Your task to perform on an android device: install app "Firefox Browser" Image 0: 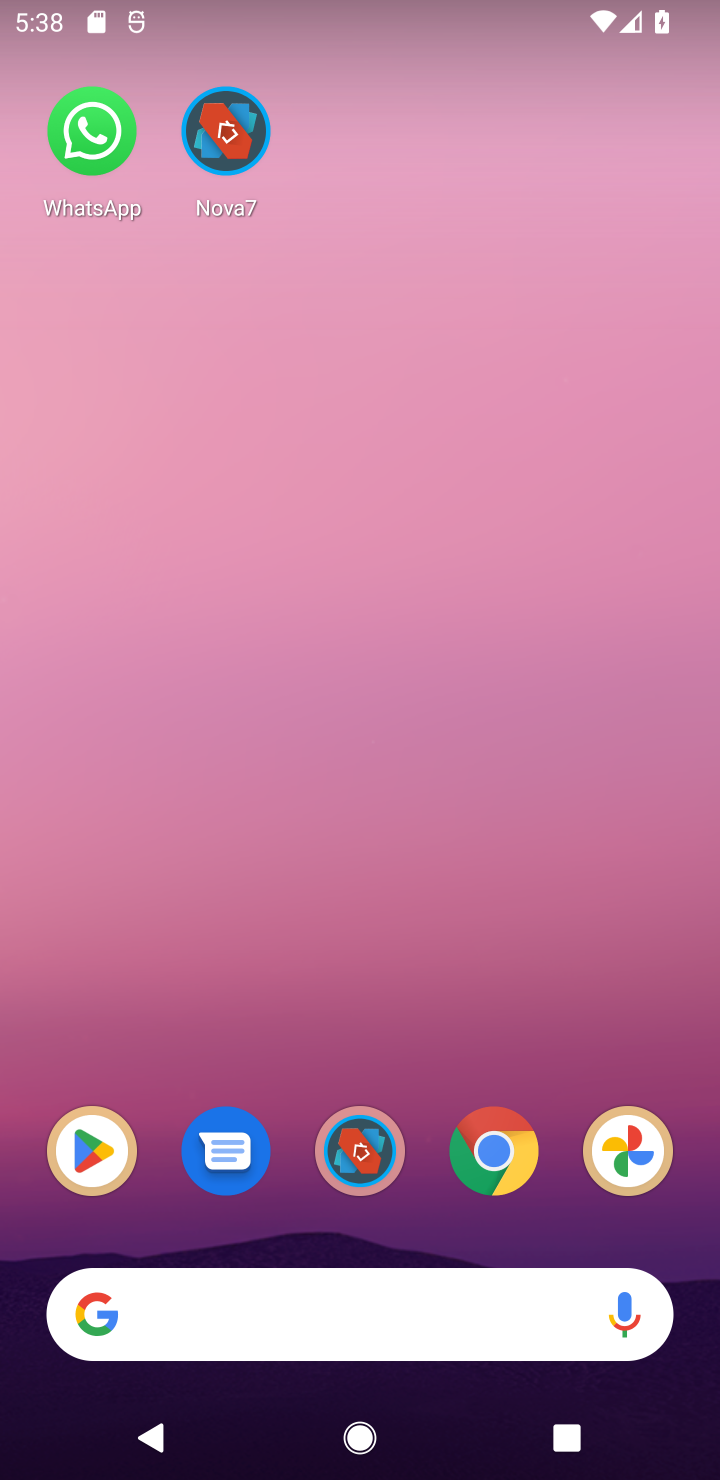
Step 0: click (98, 1154)
Your task to perform on an android device: install app "Firefox Browser" Image 1: 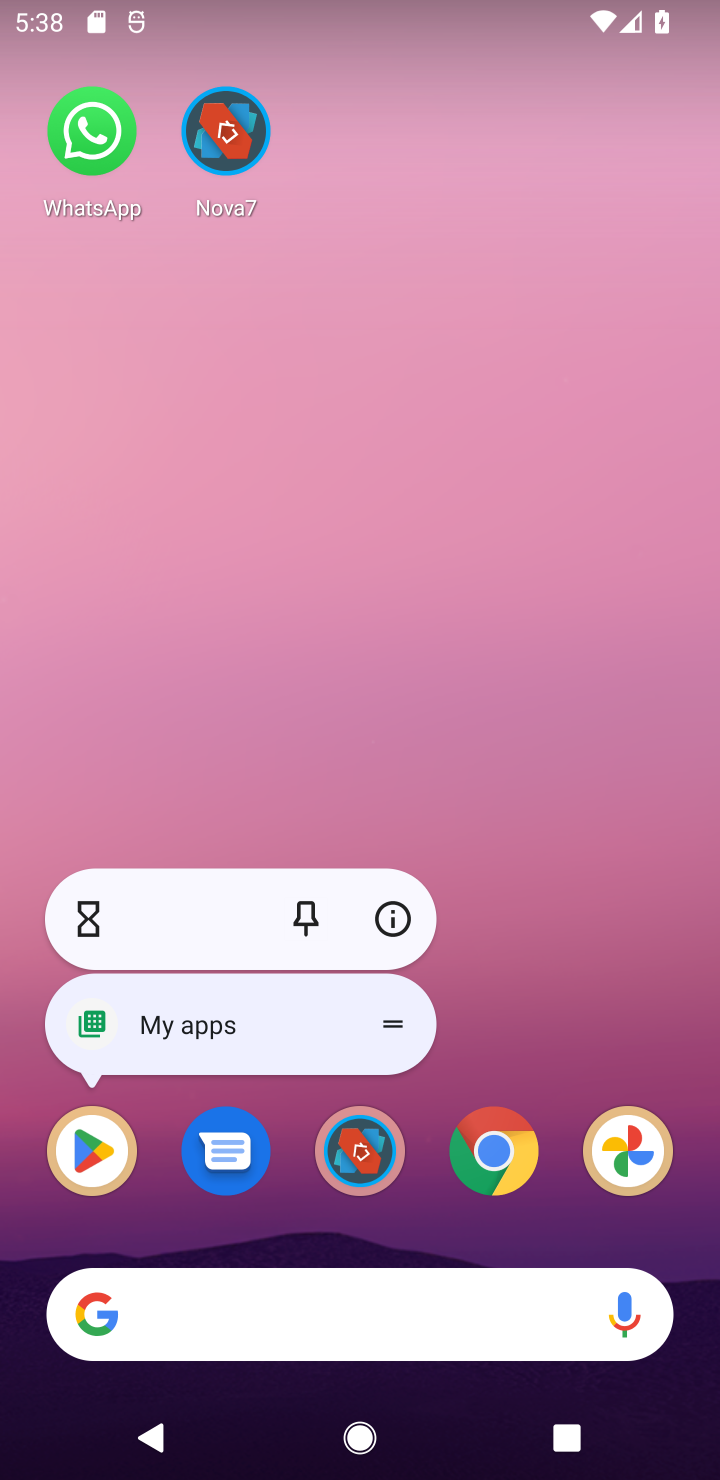
Step 1: click (98, 1154)
Your task to perform on an android device: install app "Firefox Browser" Image 2: 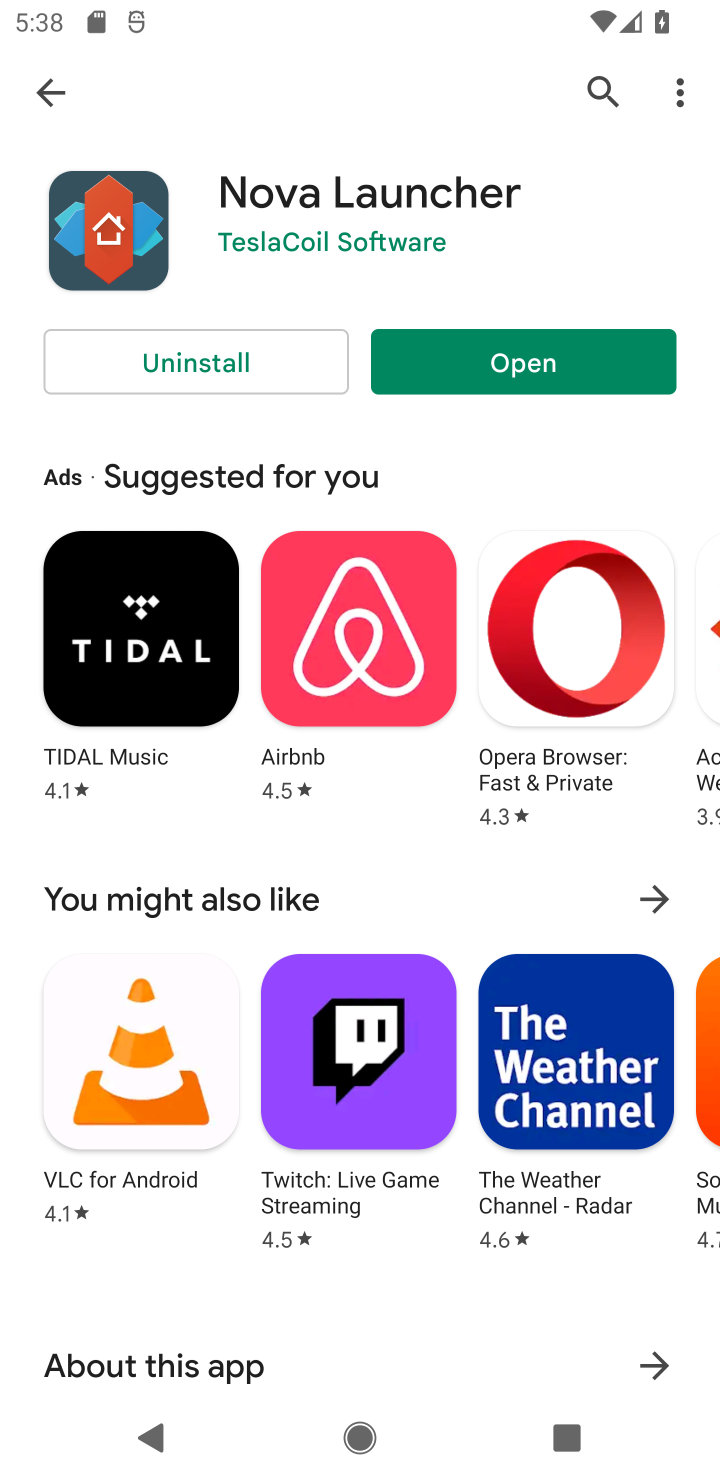
Step 2: click (598, 99)
Your task to perform on an android device: install app "Firefox Browser" Image 3: 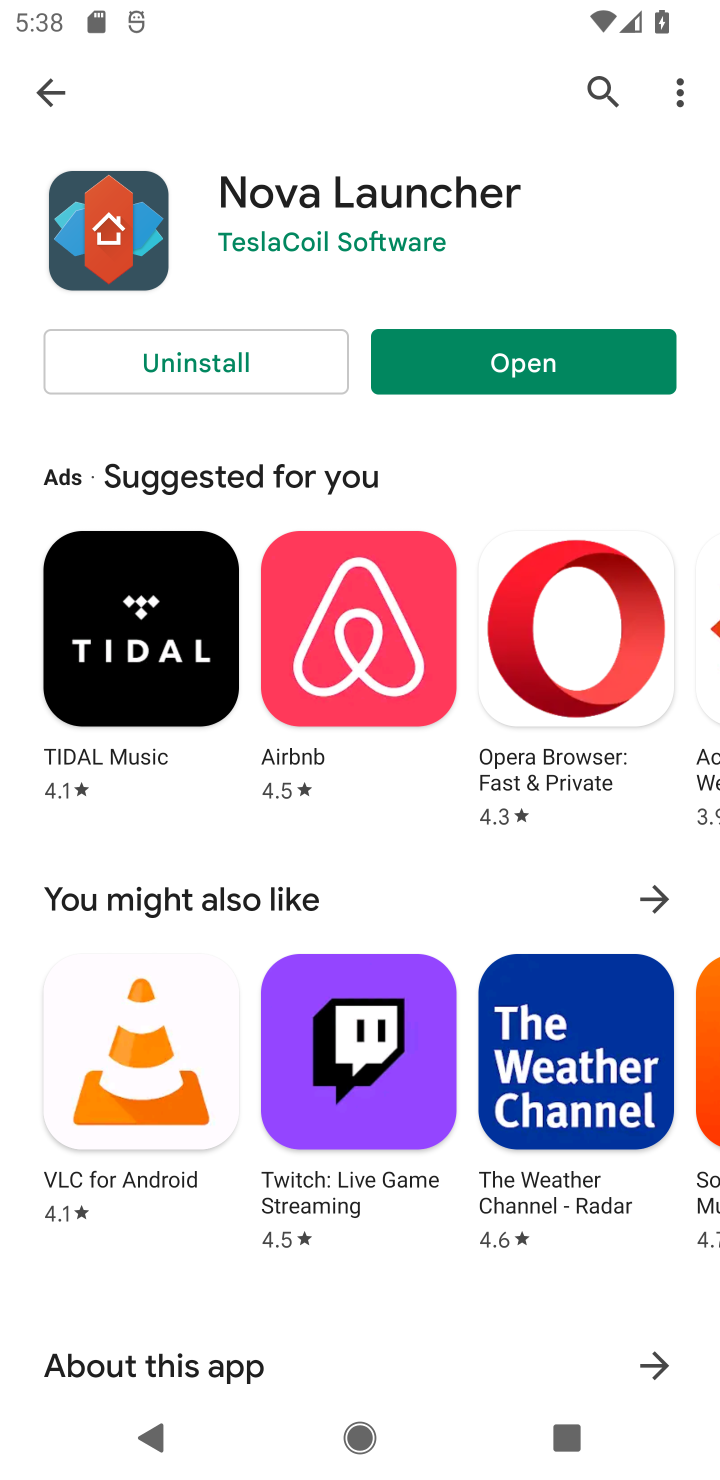
Step 3: click (601, 101)
Your task to perform on an android device: install app "Firefox Browser" Image 4: 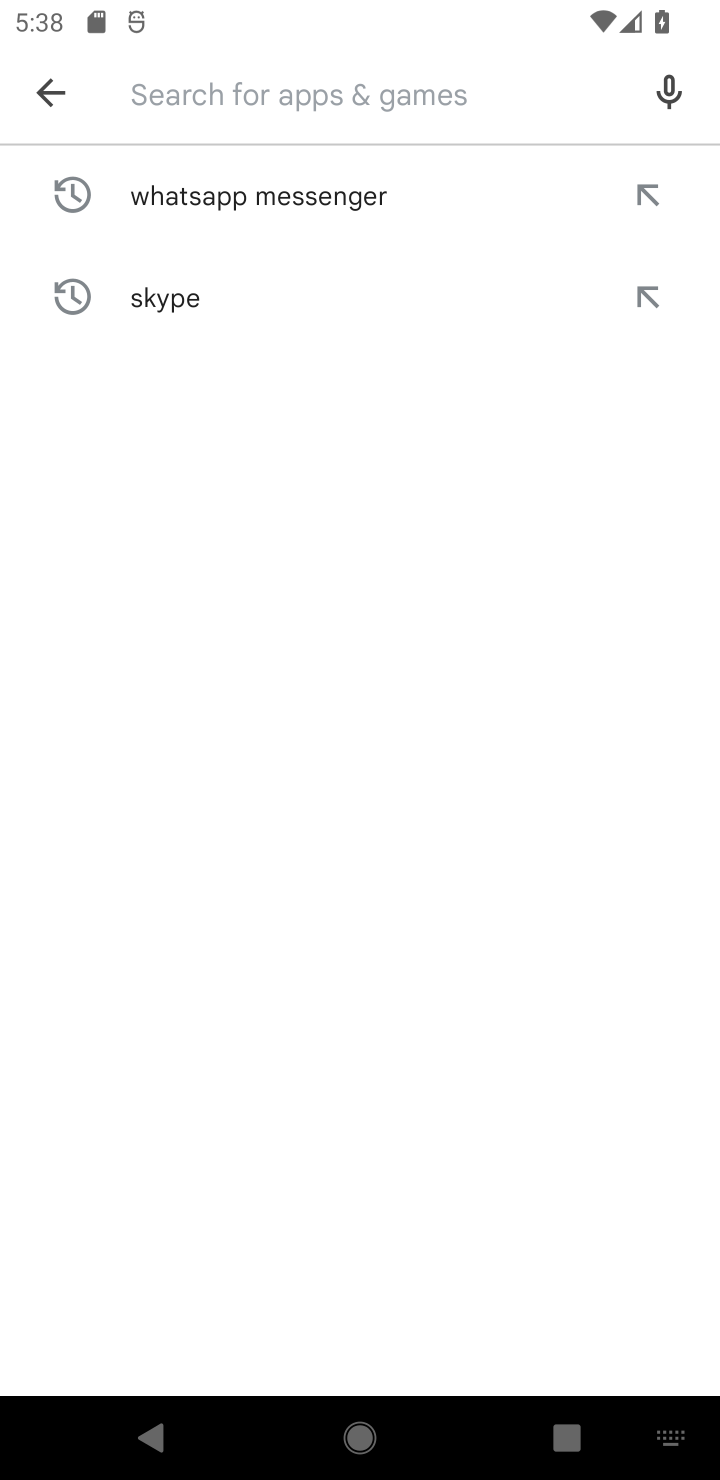
Step 4: type "Firefox Browser"
Your task to perform on an android device: install app "Firefox Browser" Image 5: 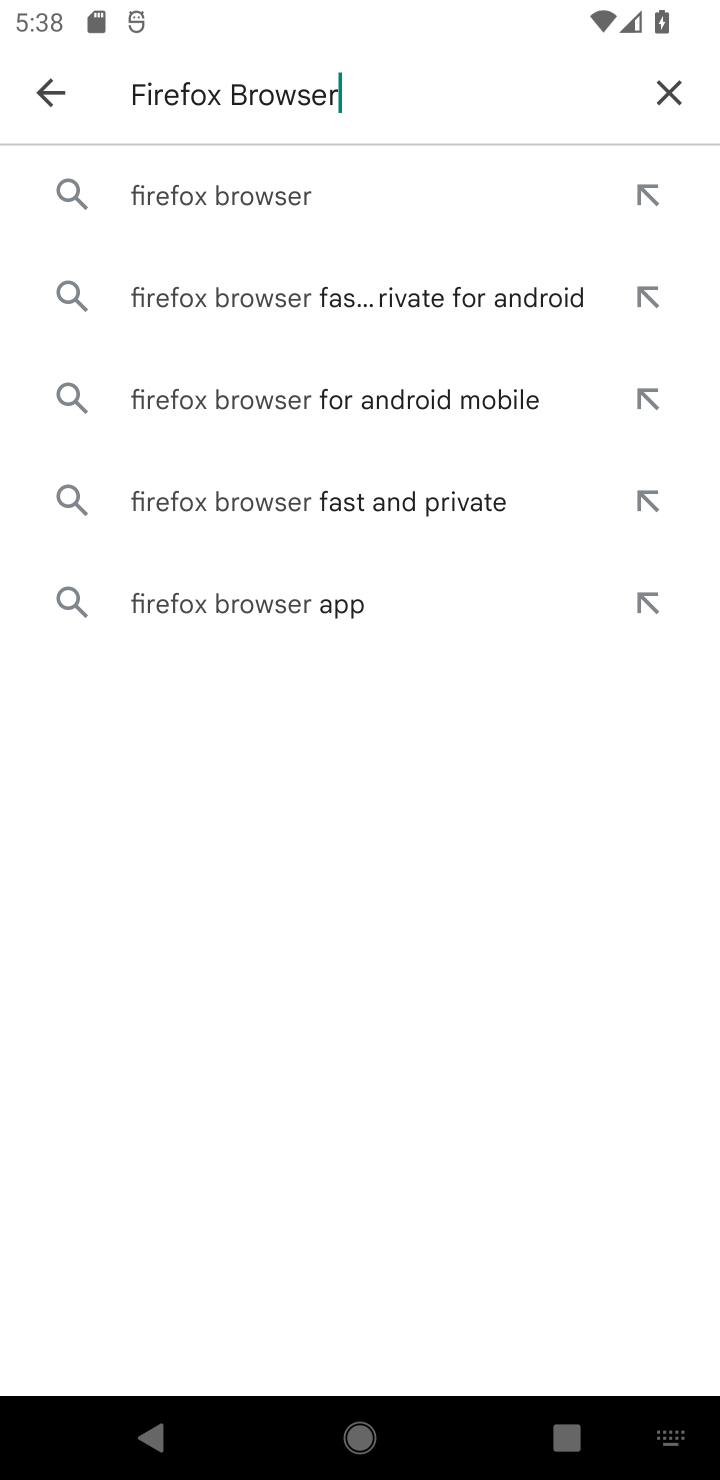
Step 5: click (172, 189)
Your task to perform on an android device: install app "Firefox Browser" Image 6: 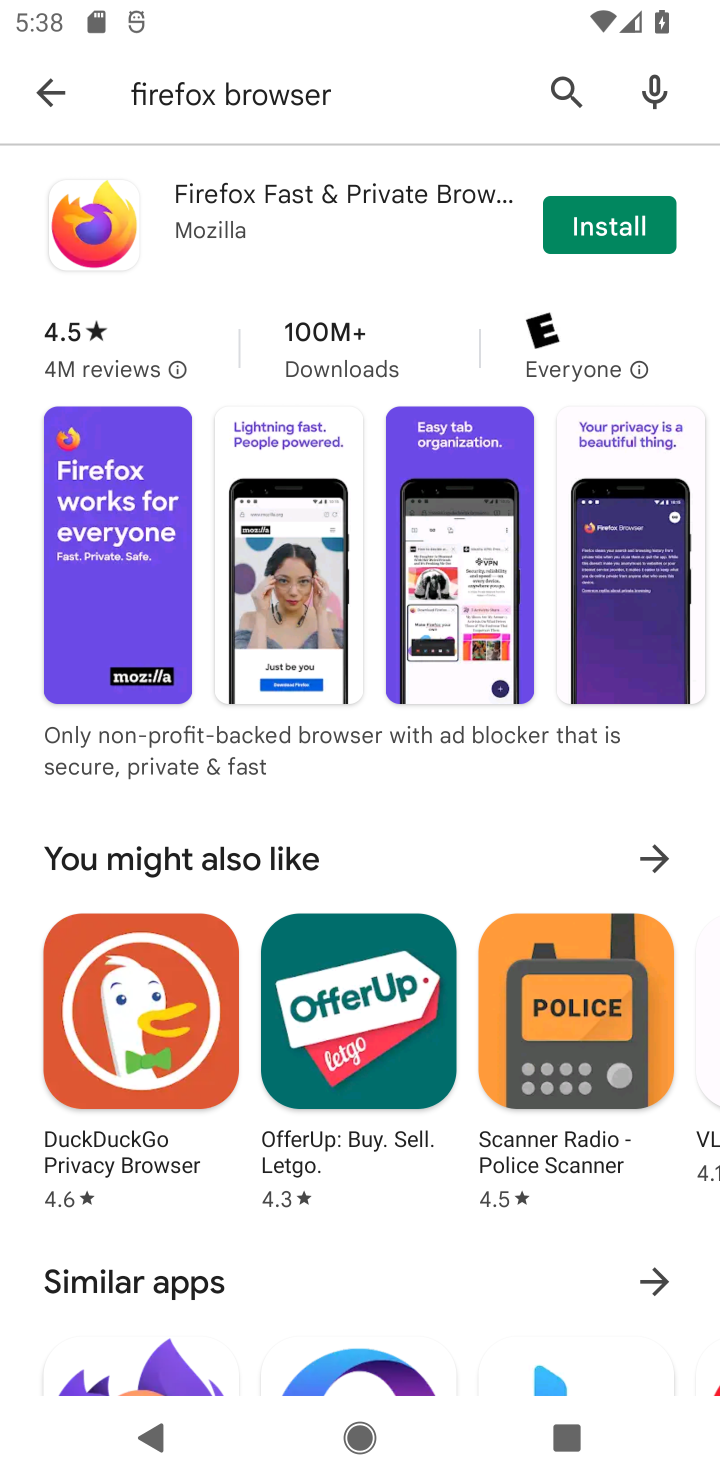
Step 6: click (592, 237)
Your task to perform on an android device: install app "Firefox Browser" Image 7: 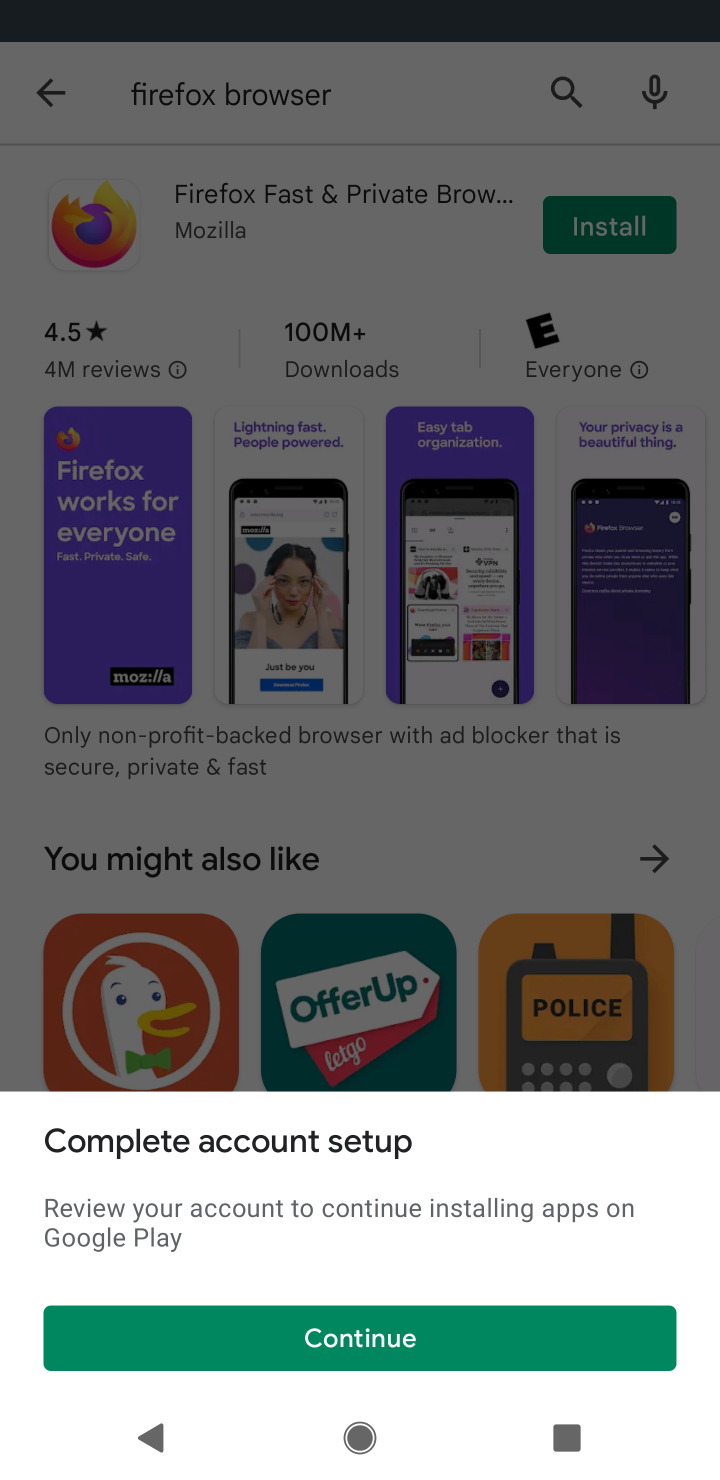
Step 7: click (369, 1349)
Your task to perform on an android device: install app "Firefox Browser" Image 8: 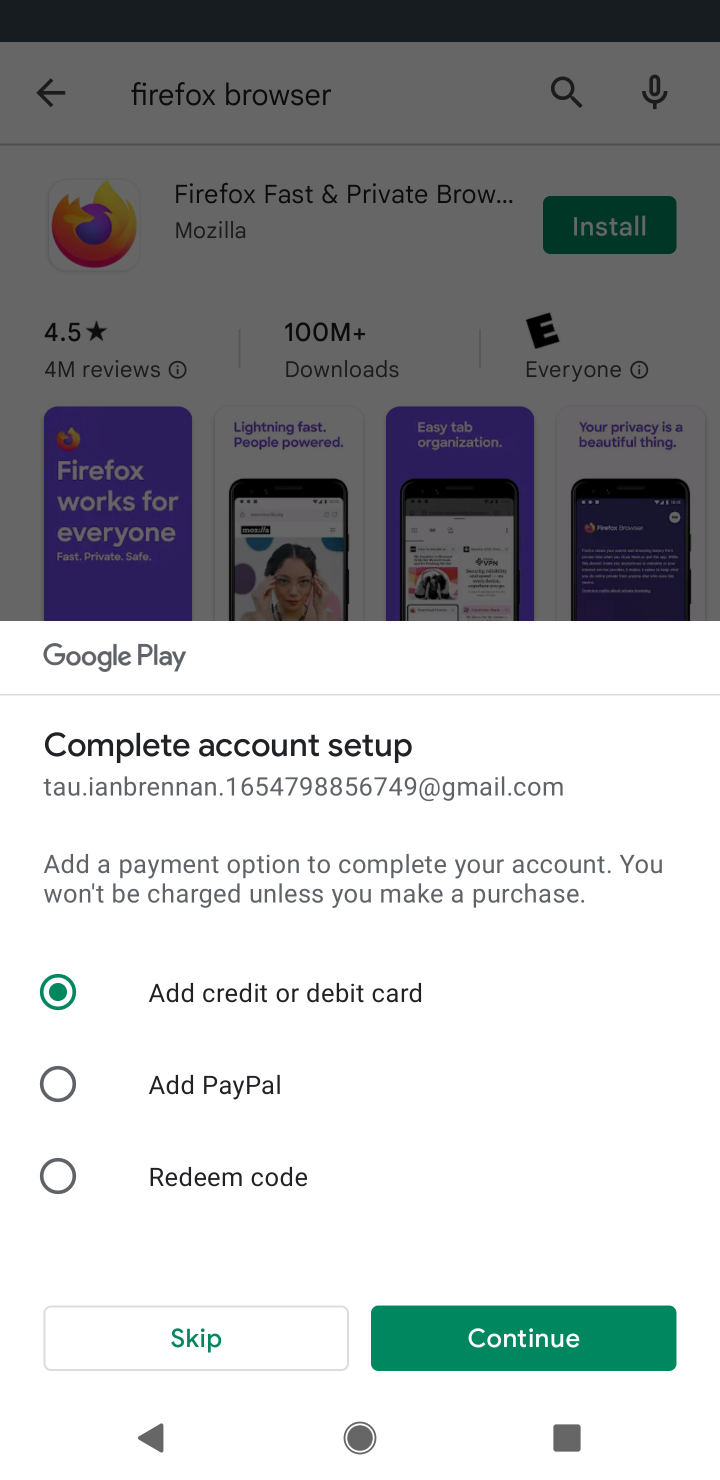
Step 8: click (136, 1358)
Your task to perform on an android device: install app "Firefox Browser" Image 9: 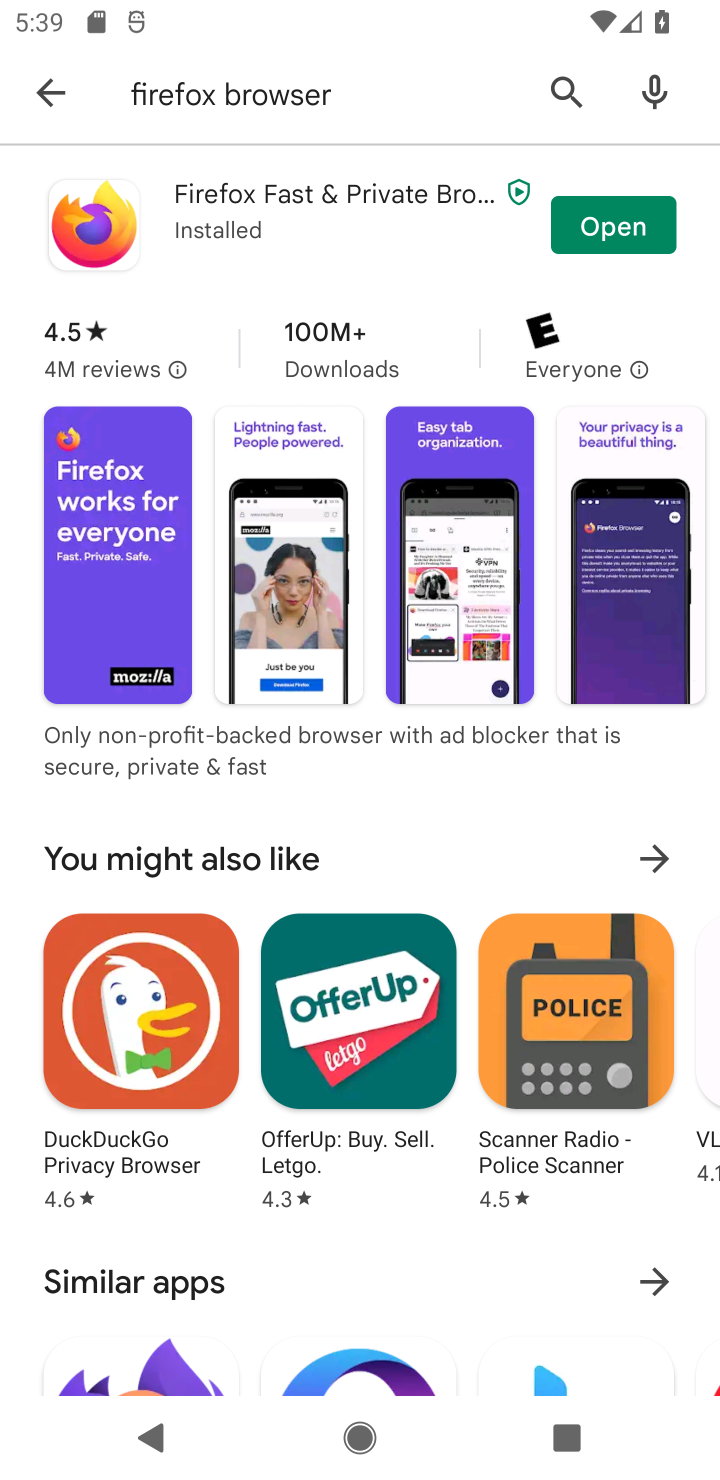
Step 9: task complete